Your task to perform on an android device: Open Google Maps and go to "Timeline" Image 0: 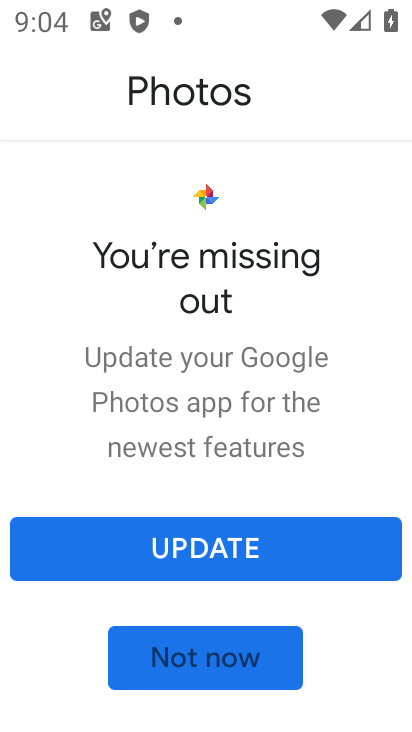
Step 0: press home button
Your task to perform on an android device: Open Google Maps and go to "Timeline" Image 1: 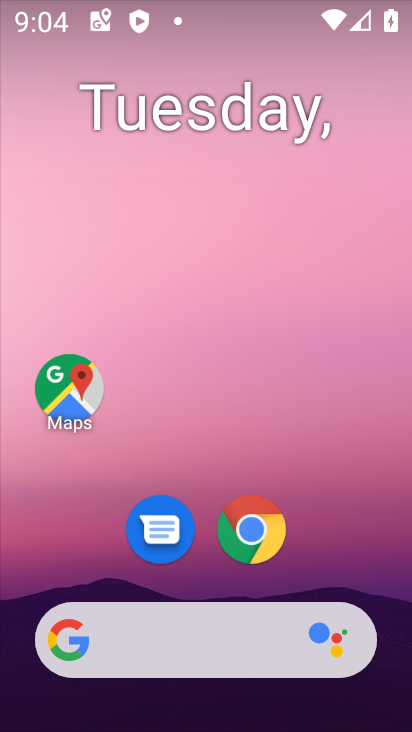
Step 1: click (129, 664)
Your task to perform on an android device: Open Google Maps and go to "Timeline" Image 2: 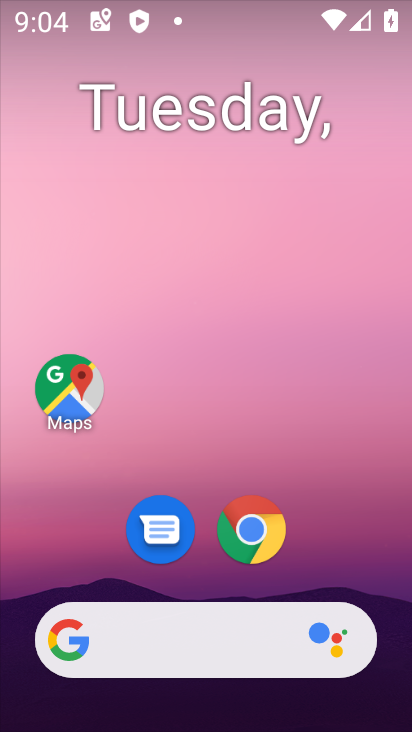
Step 2: drag from (207, 592) to (292, 112)
Your task to perform on an android device: Open Google Maps and go to "Timeline" Image 3: 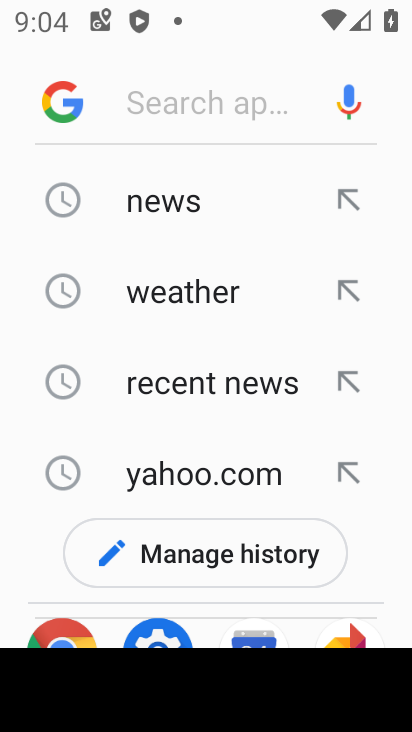
Step 3: press home button
Your task to perform on an android device: Open Google Maps and go to "Timeline" Image 4: 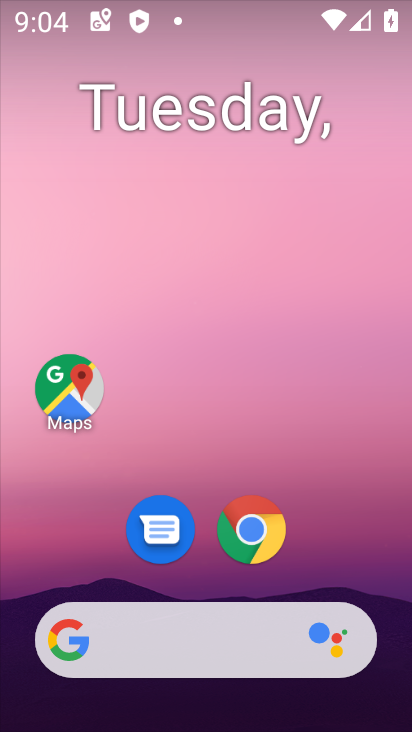
Step 4: drag from (221, 641) to (270, 291)
Your task to perform on an android device: Open Google Maps and go to "Timeline" Image 5: 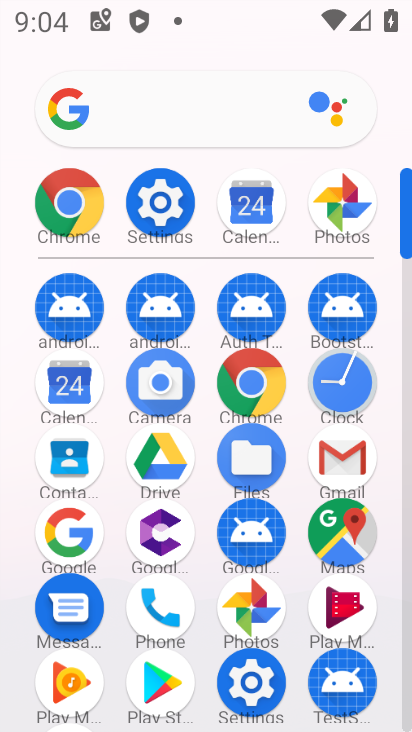
Step 5: click (348, 541)
Your task to perform on an android device: Open Google Maps and go to "Timeline" Image 6: 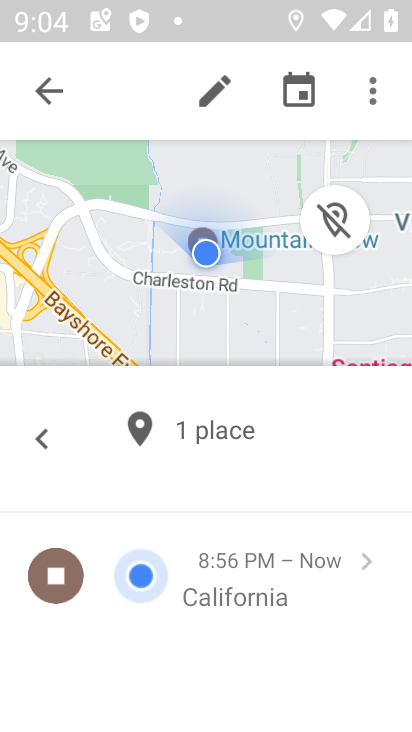
Step 6: task complete